Your task to perform on an android device: turn on wifi Image 0: 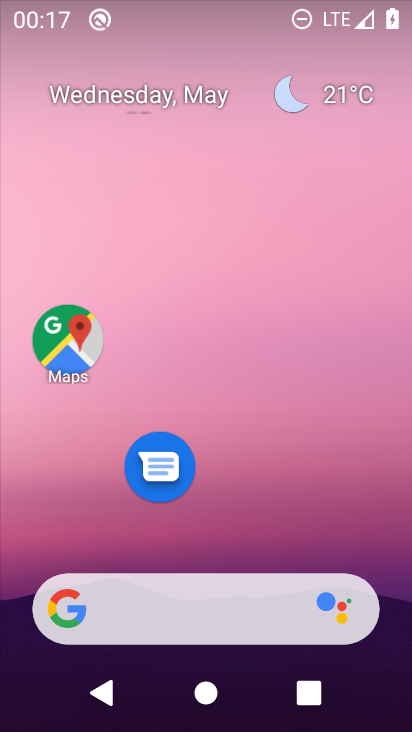
Step 0: click (331, 119)
Your task to perform on an android device: turn on wifi Image 1: 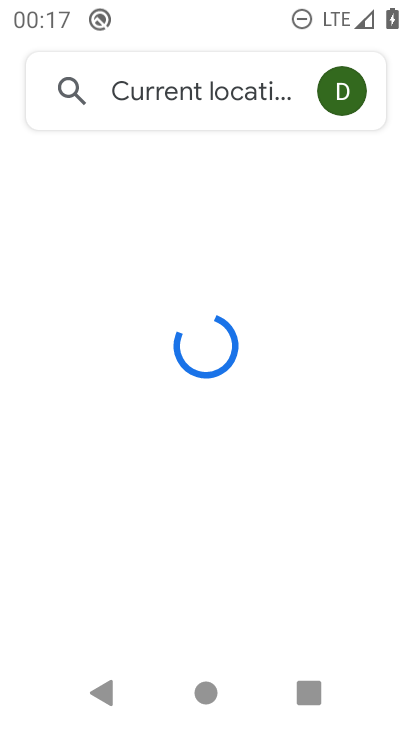
Step 1: press home button
Your task to perform on an android device: turn on wifi Image 2: 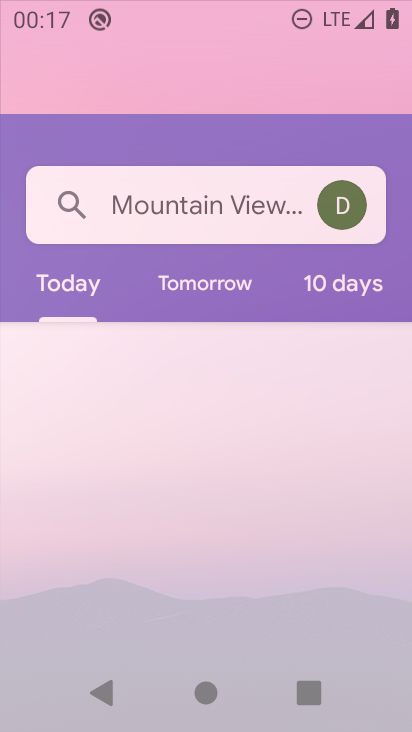
Step 2: drag from (352, 140) to (383, 51)
Your task to perform on an android device: turn on wifi Image 3: 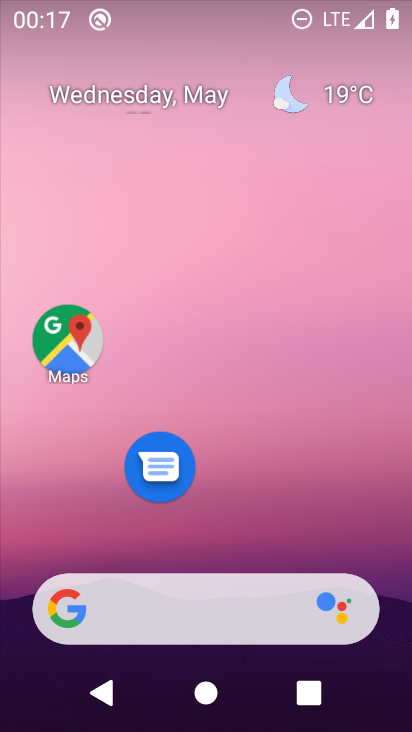
Step 3: drag from (244, 556) to (339, 143)
Your task to perform on an android device: turn on wifi Image 4: 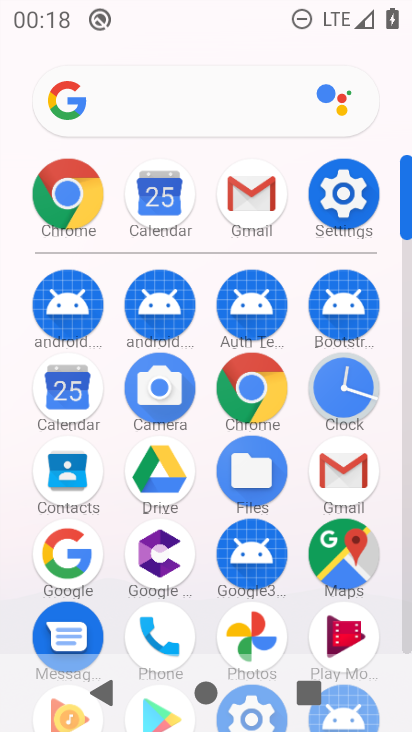
Step 4: click (329, 203)
Your task to perform on an android device: turn on wifi Image 5: 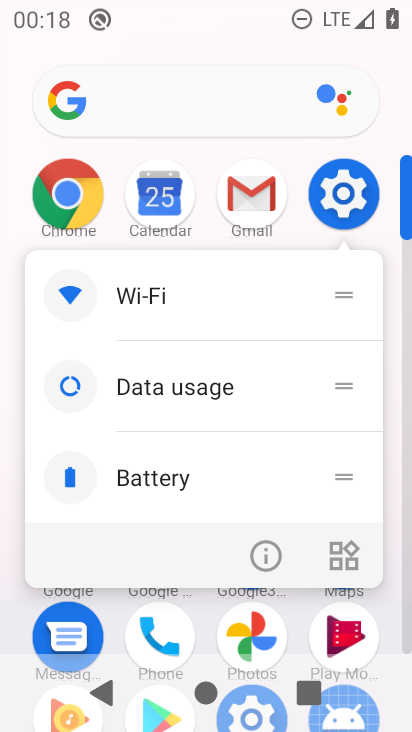
Step 5: click (255, 565)
Your task to perform on an android device: turn on wifi Image 6: 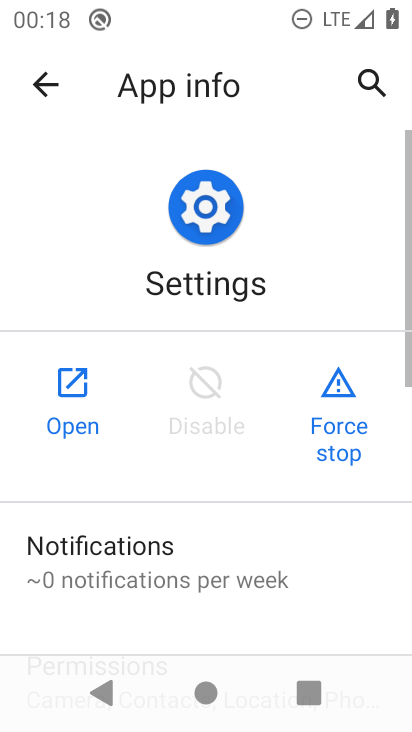
Step 6: click (82, 377)
Your task to perform on an android device: turn on wifi Image 7: 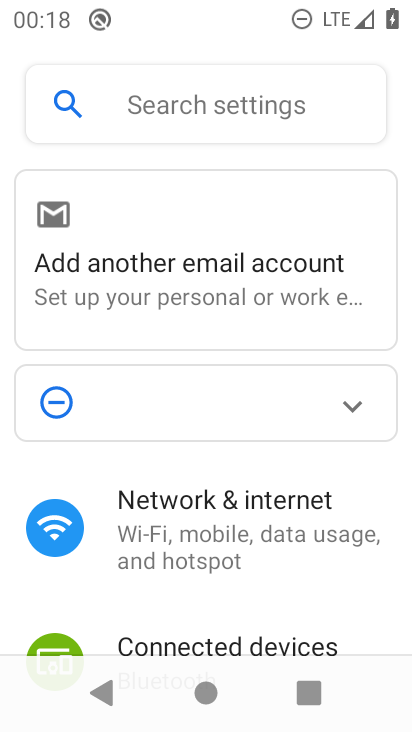
Step 7: drag from (156, 561) to (224, 0)
Your task to perform on an android device: turn on wifi Image 8: 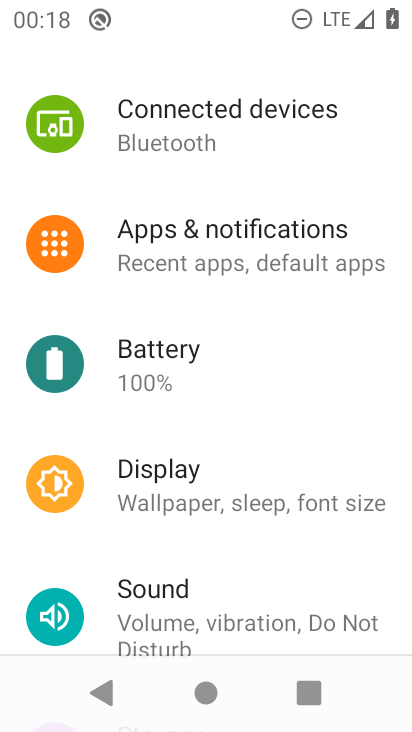
Step 8: drag from (248, 183) to (269, 407)
Your task to perform on an android device: turn on wifi Image 9: 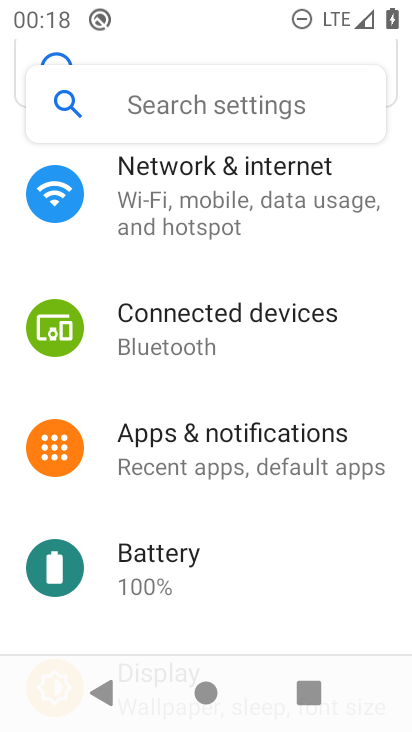
Step 9: click (208, 226)
Your task to perform on an android device: turn on wifi Image 10: 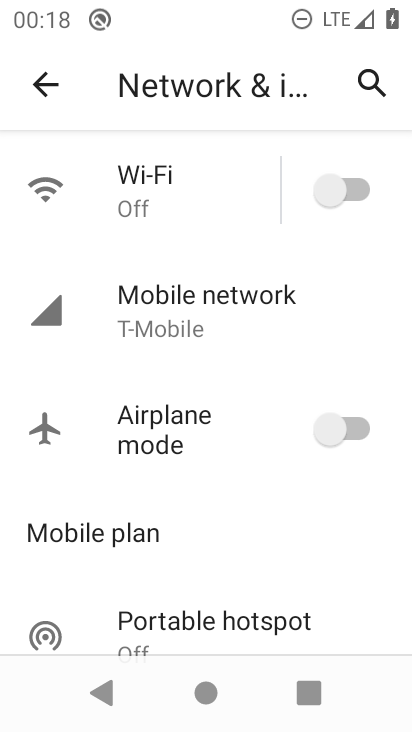
Step 10: click (278, 420)
Your task to perform on an android device: turn on wifi Image 11: 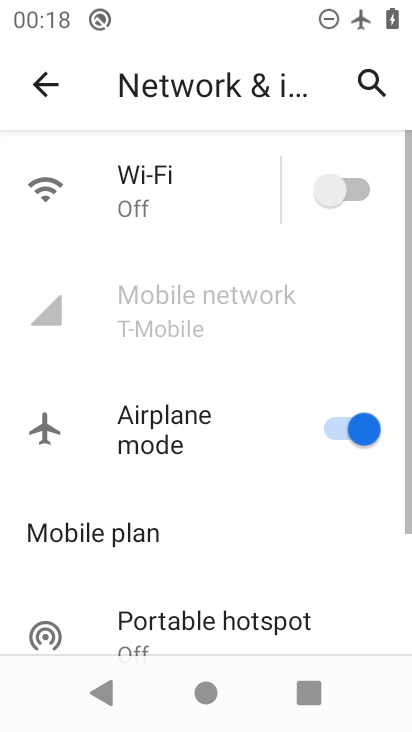
Step 11: click (278, 420)
Your task to perform on an android device: turn on wifi Image 12: 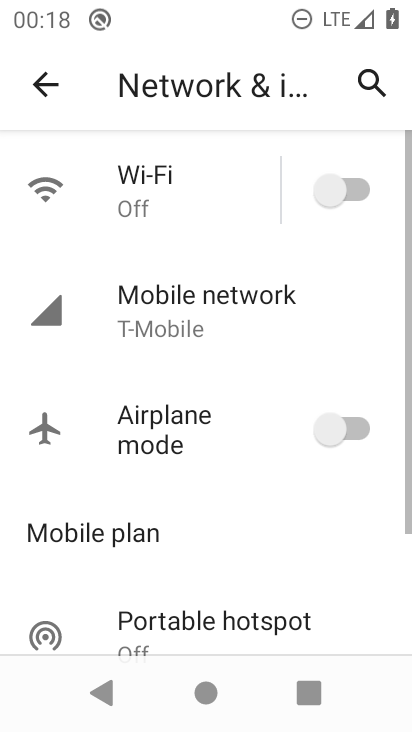
Step 12: click (339, 201)
Your task to perform on an android device: turn on wifi Image 13: 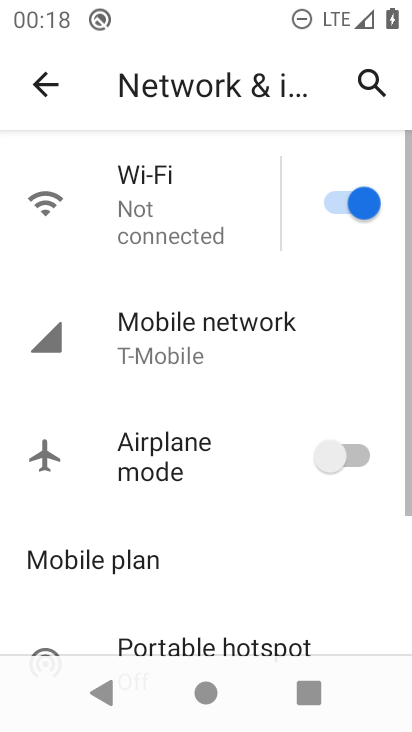
Step 13: task complete